Your task to perform on an android device: Go to location settings Image 0: 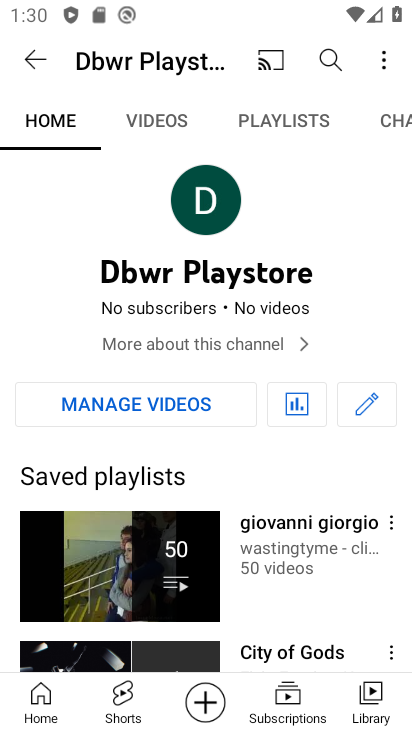
Step 0: press home button
Your task to perform on an android device: Go to location settings Image 1: 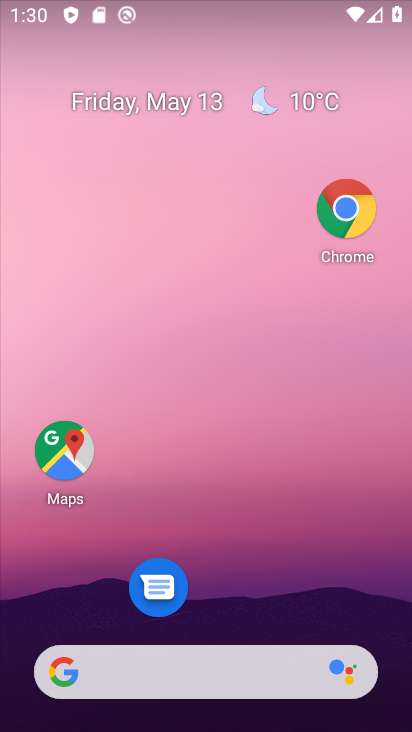
Step 1: drag from (216, 580) to (279, 51)
Your task to perform on an android device: Go to location settings Image 2: 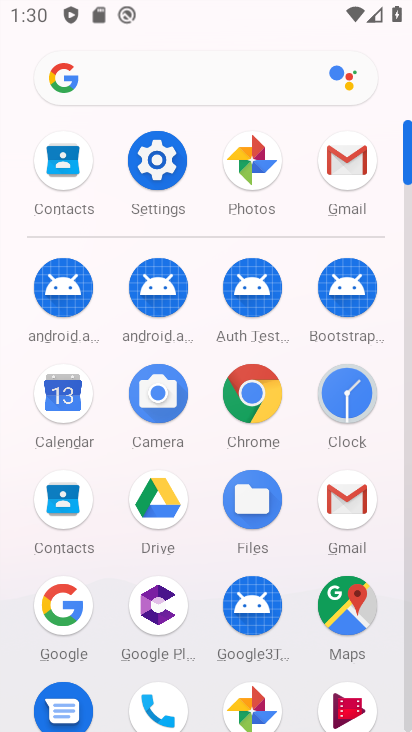
Step 2: click (153, 167)
Your task to perform on an android device: Go to location settings Image 3: 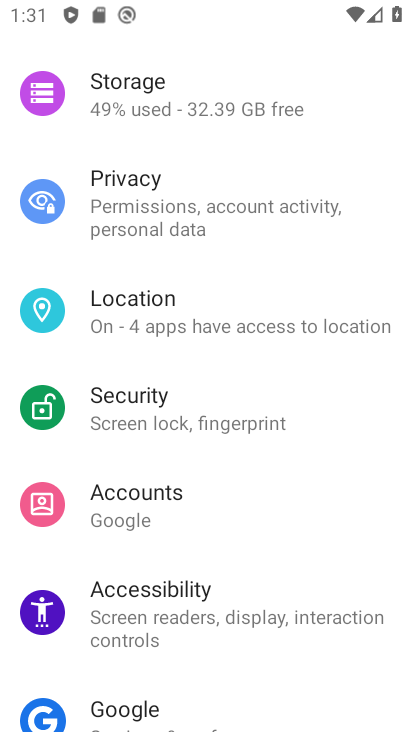
Step 3: click (152, 318)
Your task to perform on an android device: Go to location settings Image 4: 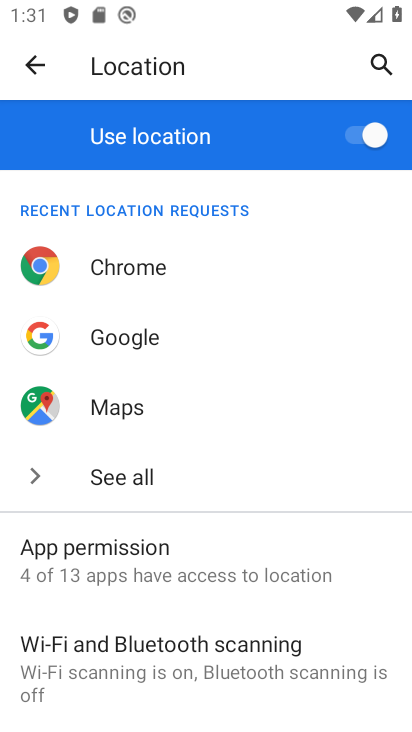
Step 4: task complete